Your task to perform on an android device: Go to privacy settings Image 0: 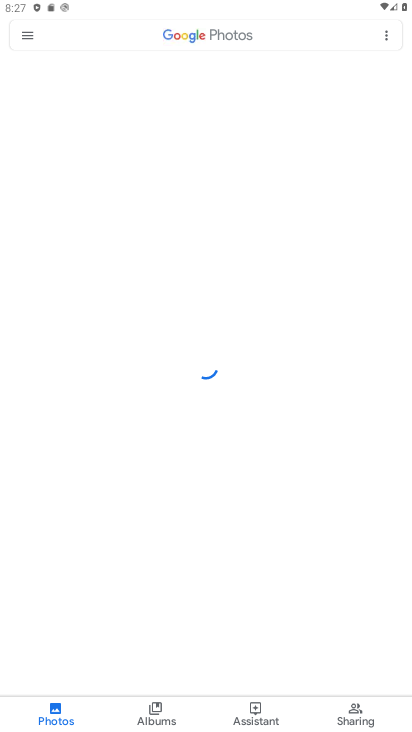
Step 0: press back button
Your task to perform on an android device: Go to privacy settings Image 1: 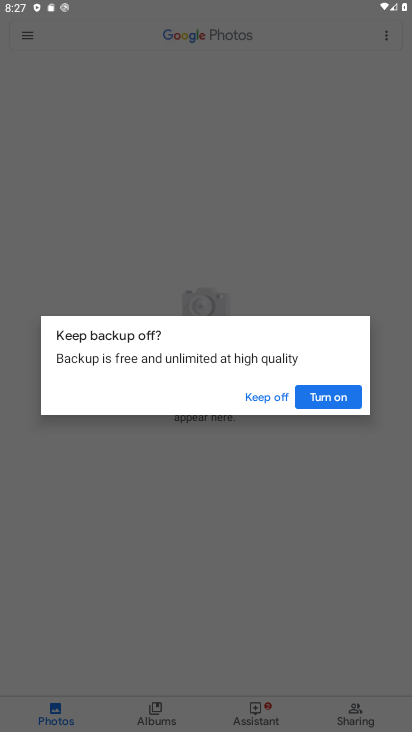
Step 1: press home button
Your task to perform on an android device: Go to privacy settings Image 2: 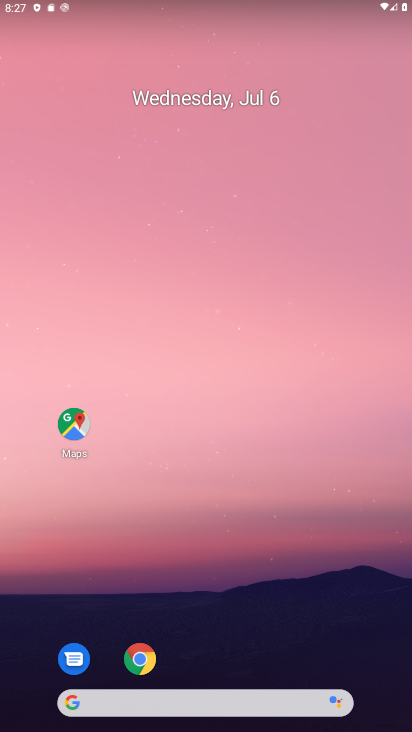
Step 2: drag from (341, 641) to (323, 145)
Your task to perform on an android device: Go to privacy settings Image 3: 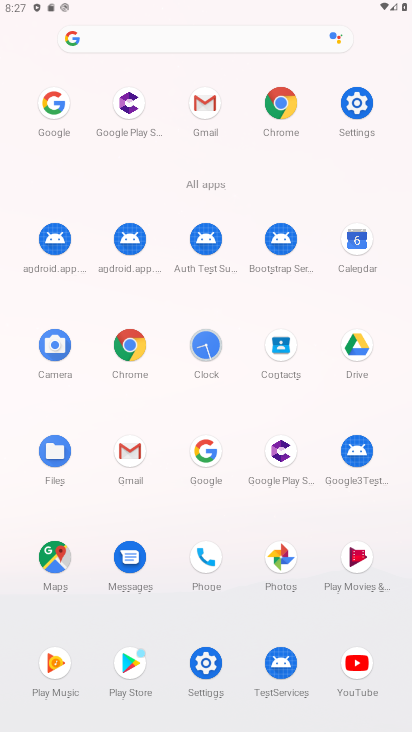
Step 3: click (362, 107)
Your task to perform on an android device: Go to privacy settings Image 4: 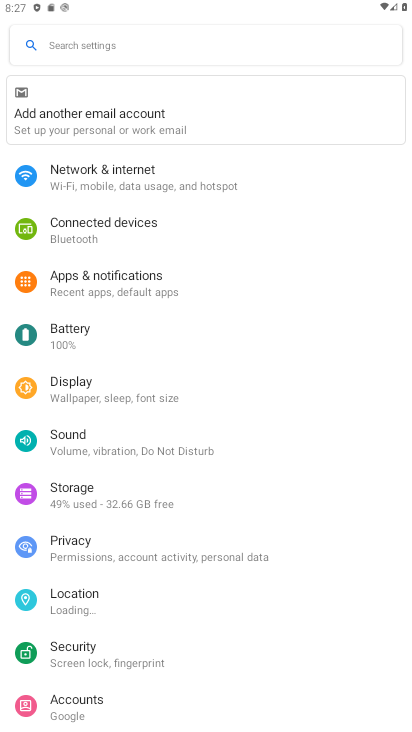
Step 4: drag from (344, 252) to (356, 494)
Your task to perform on an android device: Go to privacy settings Image 5: 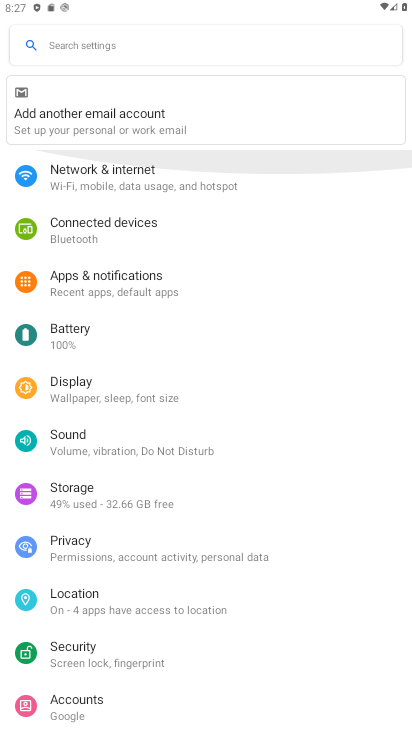
Step 5: drag from (341, 538) to (361, 205)
Your task to perform on an android device: Go to privacy settings Image 6: 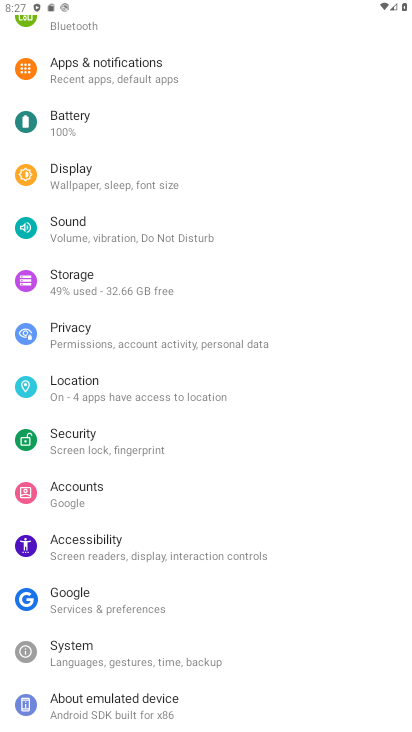
Step 6: drag from (330, 521) to (300, 272)
Your task to perform on an android device: Go to privacy settings Image 7: 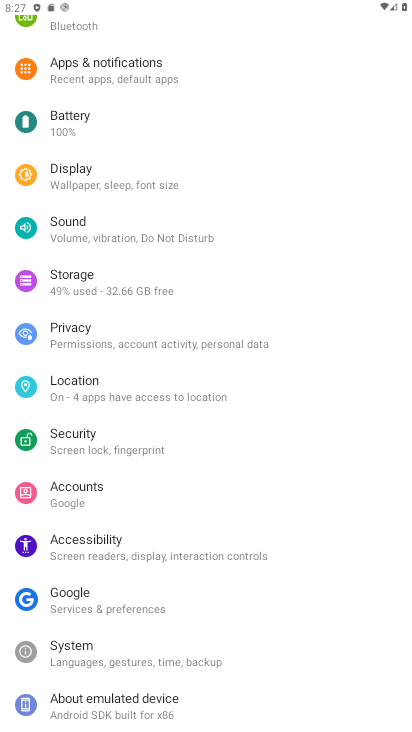
Step 7: click (144, 335)
Your task to perform on an android device: Go to privacy settings Image 8: 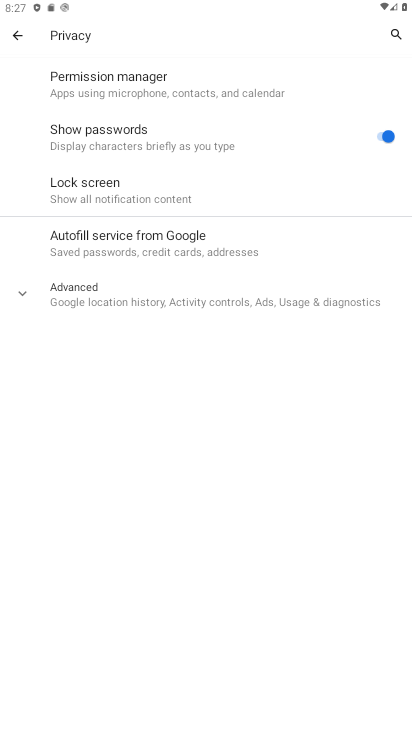
Step 8: click (222, 303)
Your task to perform on an android device: Go to privacy settings Image 9: 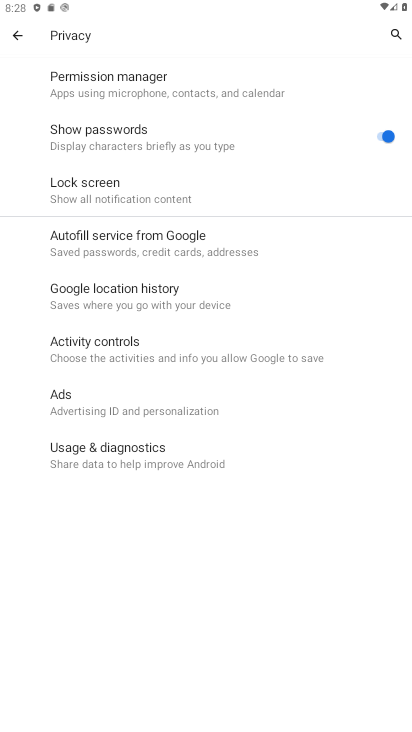
Step 9: task complete